Your task to perform on an android device: Open the stopwatch Image 0: 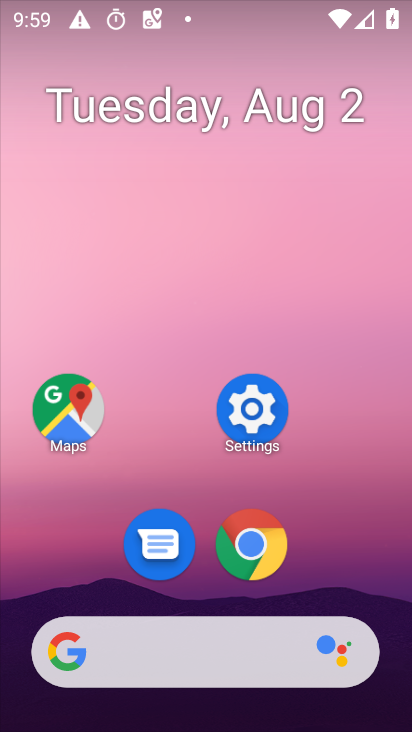
Step 0: drag from (195, 641) to (323, 0)
Your task to perform on an android device: Open the stopwatch Image 1: 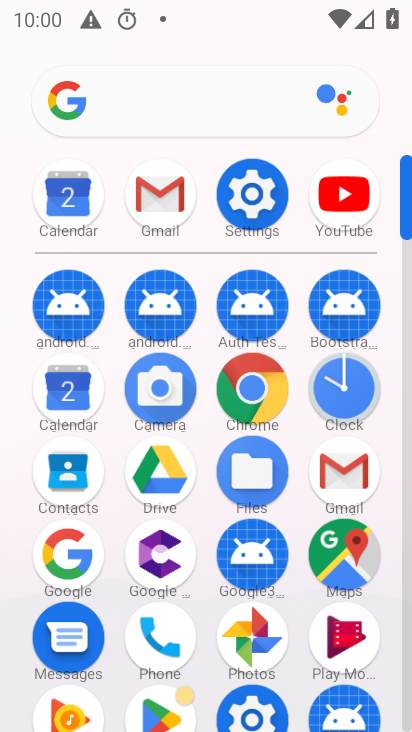
Step 1: click (348, 384)
Your task to perform on an android device: Open the stopwatch Image 2: 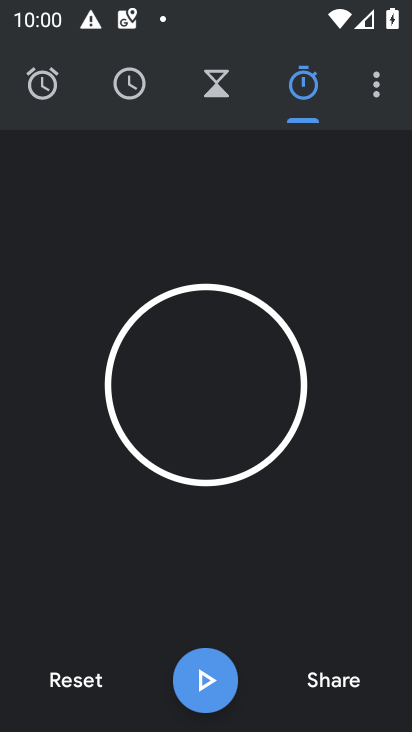
Step 2: click (99, 680)
Your task to perform on an android device: Open the stopwatch Image 3: 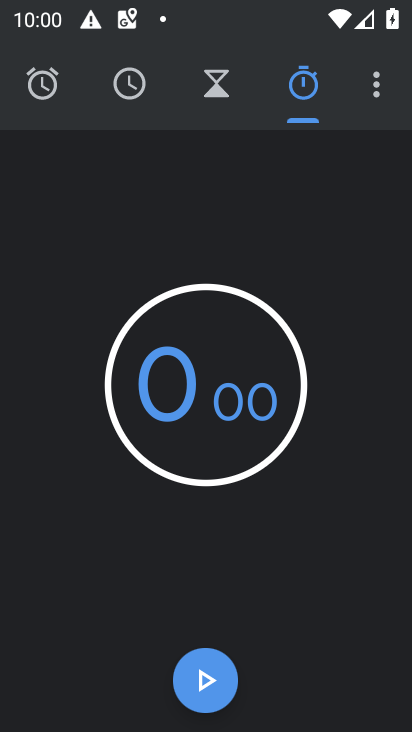
Step 3: task complete